Your task to perform on an android device: turn off javascript in the chrome app Image 0: 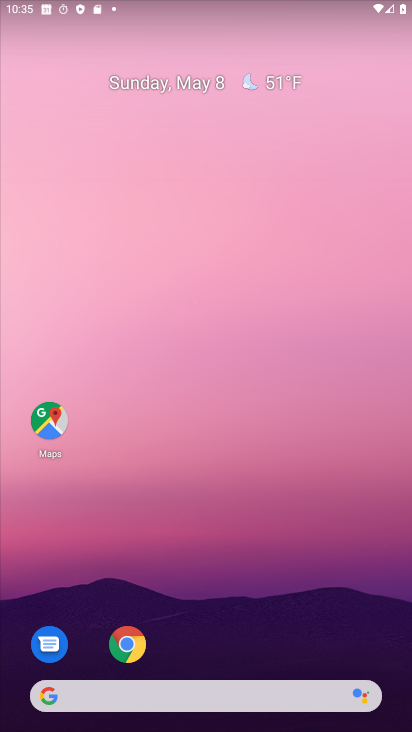
Step 0: drag from (214, 674) to (266, 186)
Your task to perform on an android device: turn off javascript in the chrome app Image 1: 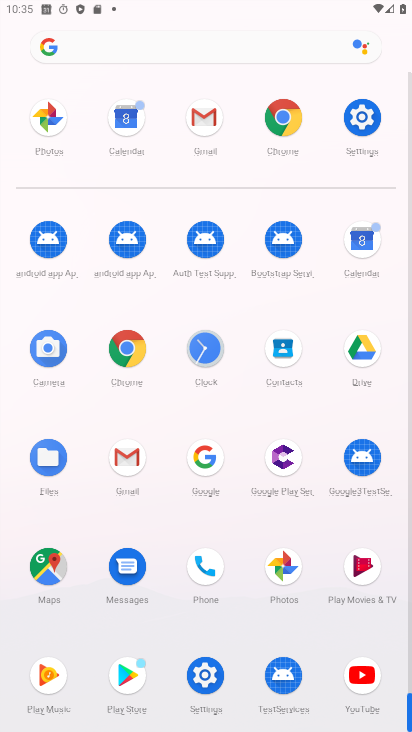
Step 1: click (131, 358)
Your task to perform on an android device: turn off javascript in the chrome app Image 2: 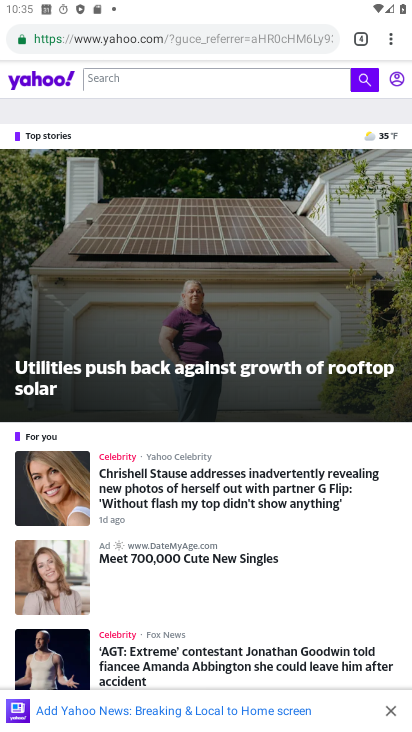
Step 2: drag from (278, 354) to (300, 273)
Your task to perform on an android device: turn off javascript in the chrome app Image 3: 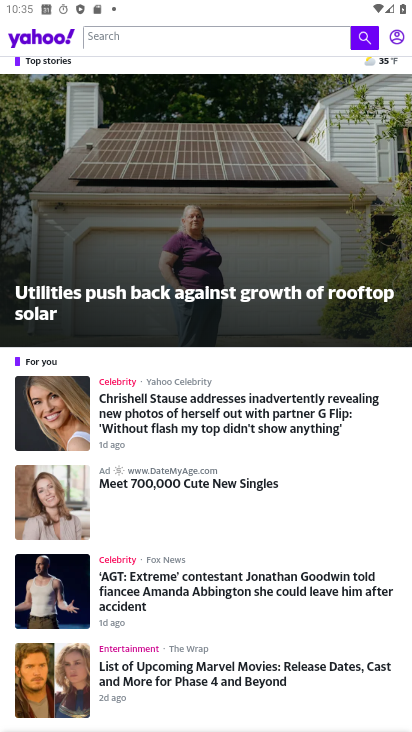
Step 3: drag from (399, 36) to (353, 410)
Your task to perform on an android device: turn off javascript in the chrome app Image 4: 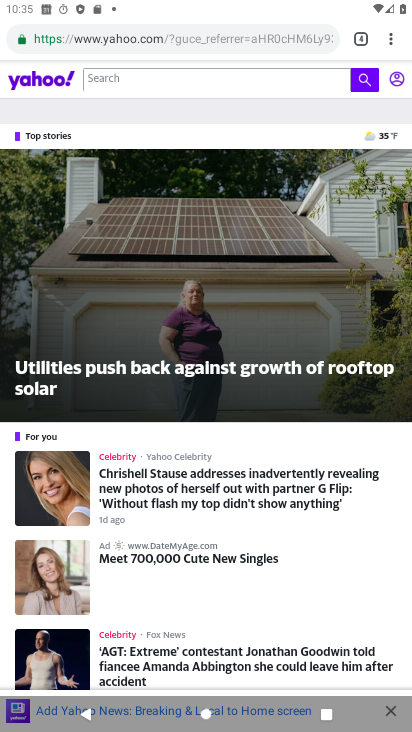
Step 4: drag from (388, 47) to (281, 473)
Your task to perform on an android device: turn off javascript in the chrome app Image 5: 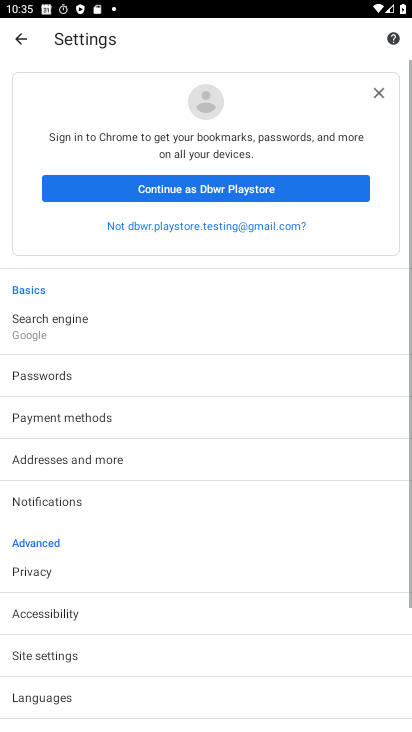
Step 5: drag from (146, 550) to (253, 58)
Your task to perform on an android device: turn off javascript in the chrome app Image 6: 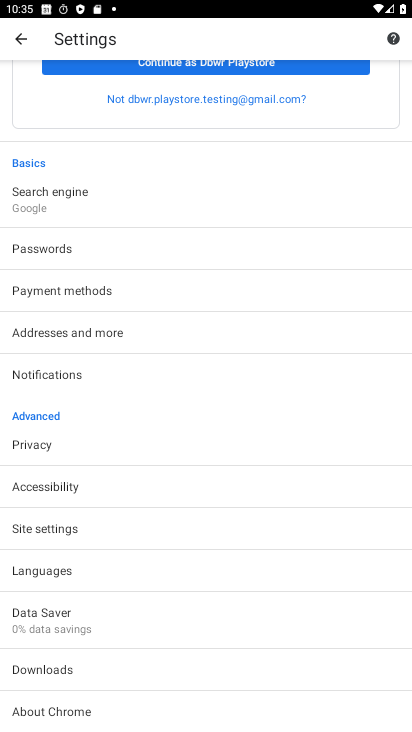
Step 6: click (62, 528)
Your task to perform on an android device: turn off javascript in the chrome app Image 7: 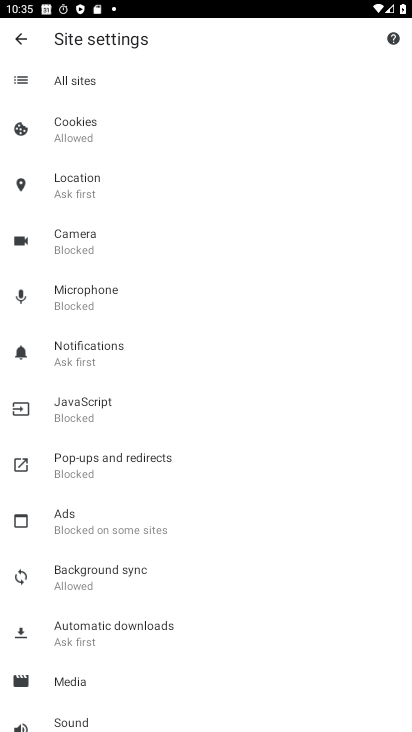
Step 7: click (118, 412)
Your task to perform on an android device: turn off javascript in the chrome app Image 8: 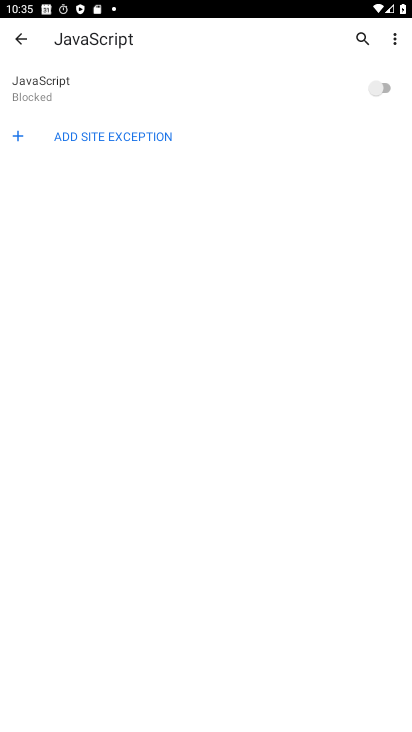
Step 8: task complete